Your task to perform on an android device: Show me the alarms in the clock app Image 0: 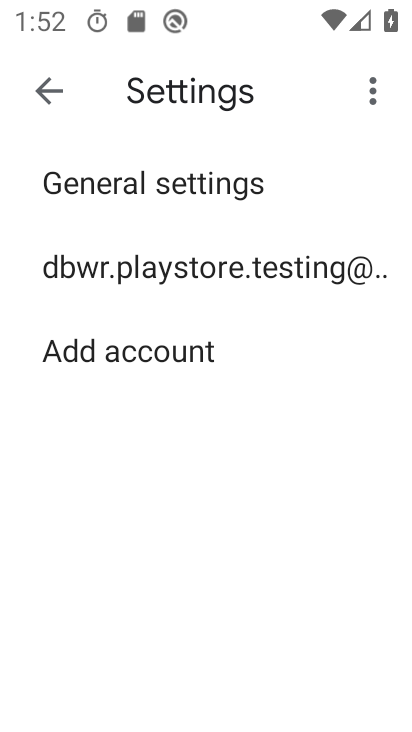
Step 0: press home button
Your task to perform on an android device: Show me the alarms in the clock app Image 1: 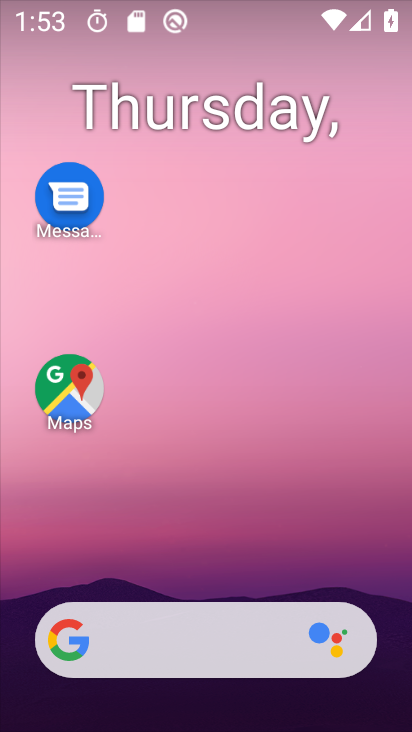
Step 1: drag from (153, 582) to (197, 108)
Your task to perform on an android device: Show me the alarms in the clock app Image 2: 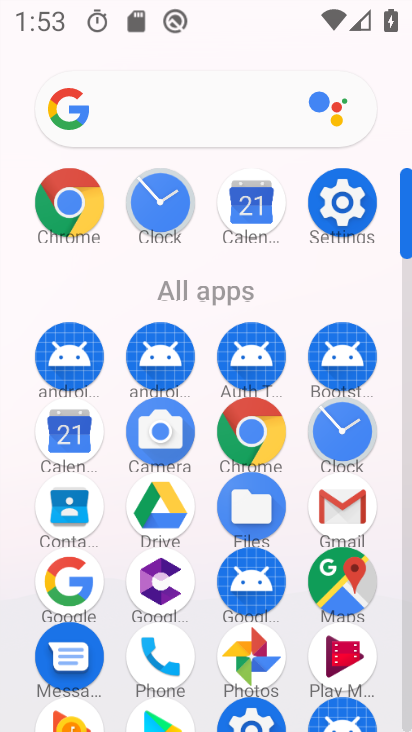
Step 2: click (351, 446)
Your task to perform on an android device: Show me the alarms in the clock app Image 3: 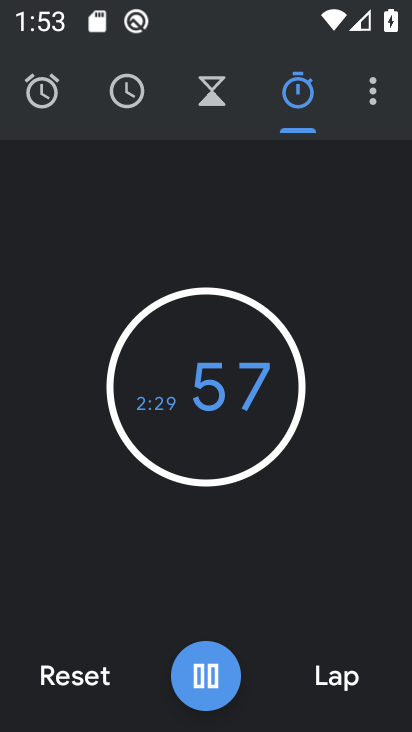
Step 3: click (202, 680)
Your task to perform on an android device: Show me the alarms in the clock app Image 4: 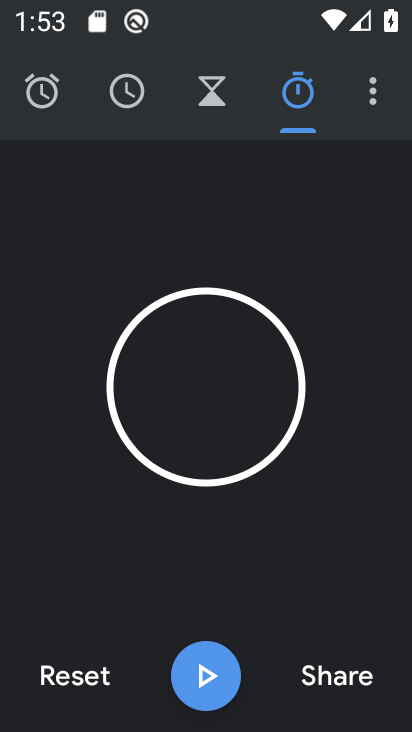
Step 4: click (42, 103)
Your task to perform on an android device: Show me the alarms in the clock app Image 5: 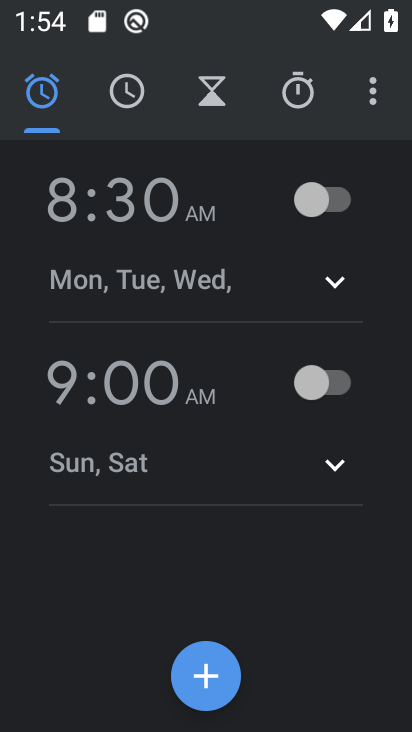
Step 5: task complete